Your task to perform on an android device: Go to CNN.com Image 0: 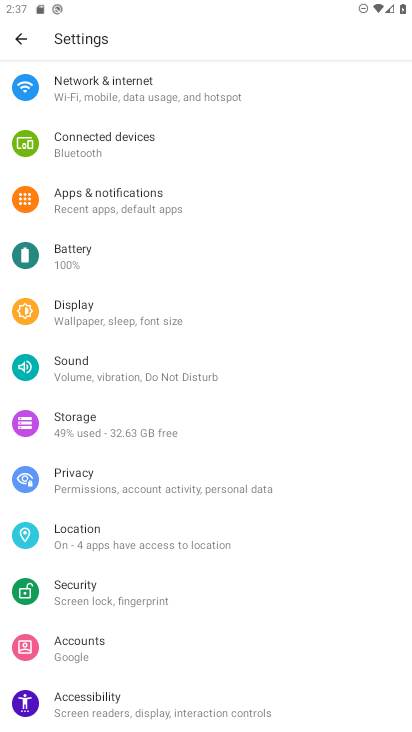
Step 0: press home button
Your task to perform on an android device: Go to CNN.com Image 1: 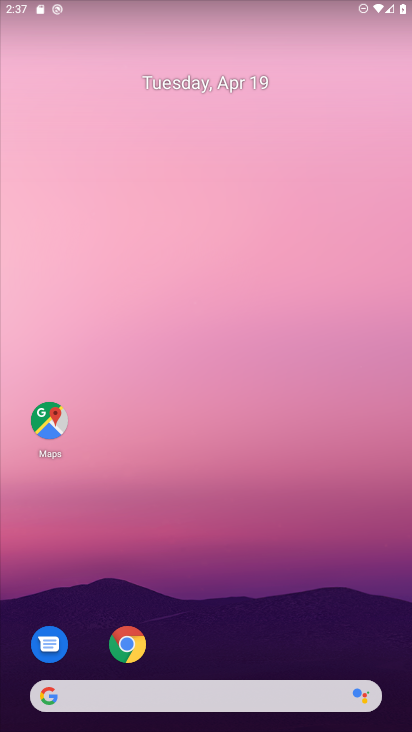
Step 1: click (134, 648)
Your task to perform on an android device: Go to CNN.com Image 2: 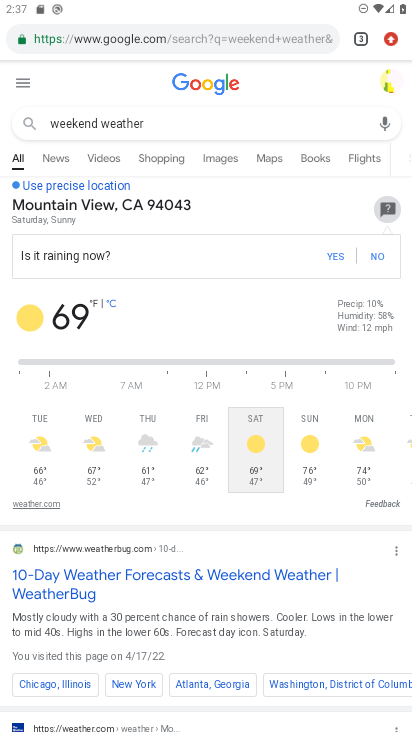
Step 2: click (359, 41)
Your task to perform on an android device: Go to CNN.com Image 3: 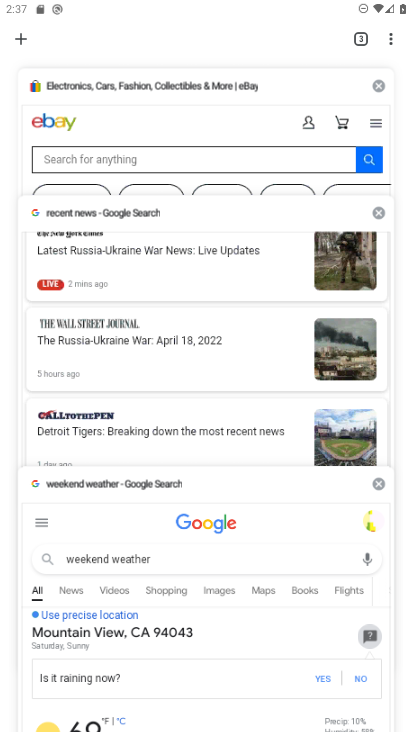
Step 3: click (27, 37)
Your task to perform on an android device: Go to CNN.com Image 4: 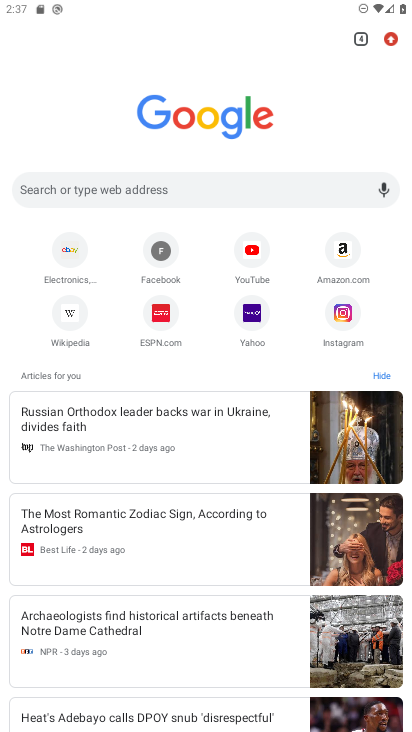
Step 4: click (166, 181)
Your task to perform on an android device: Go to CNN.com Image 5: 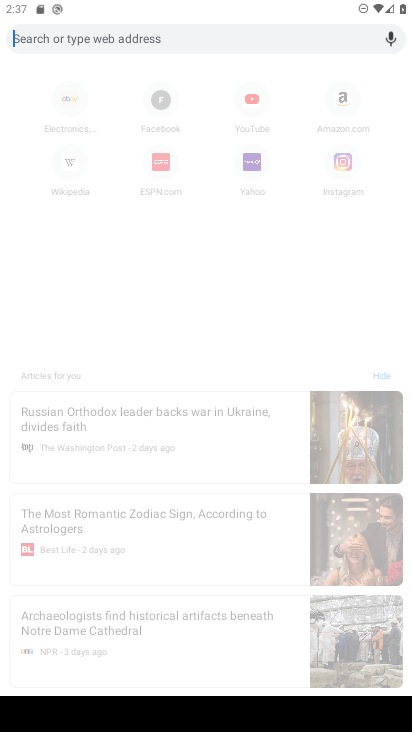
Step 5: type "cnn.com"
Your task to perform on an android device: Go to CNN.com Image 6: 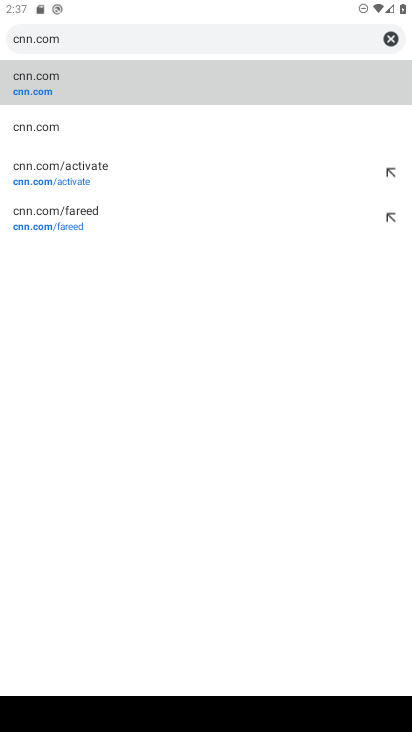
Step 6: click (45, 84)
Your task to perform on an android device: Go to CNN.com Image 7: 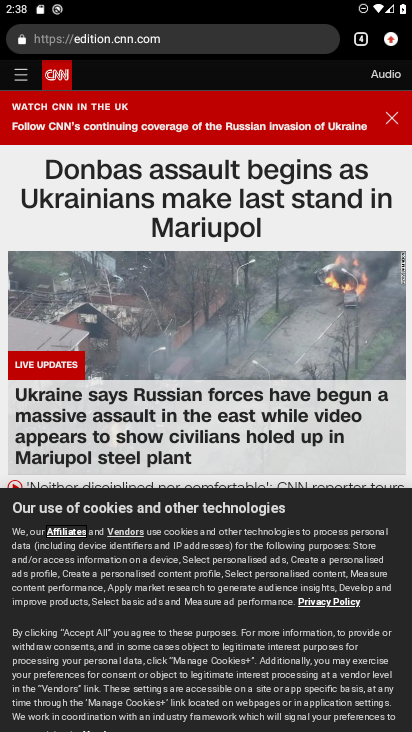
Step 7: task complete